Your task to perform on an android device: What's on my calendar tomorrow? Image 0: 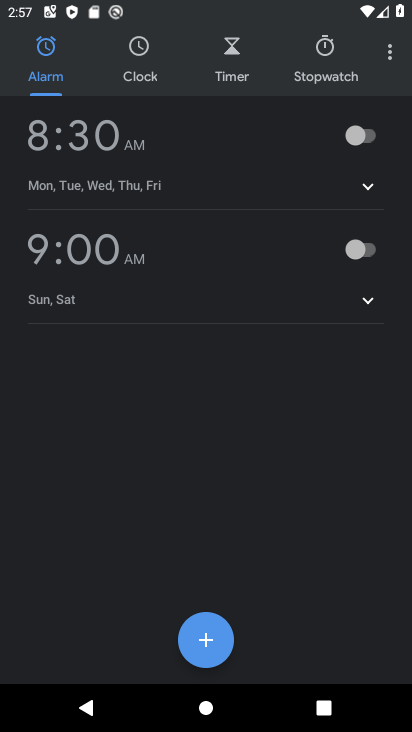
Step 0: press home button
Your task to perform on an android device: What's on my calendar tomorrow? Image 1: 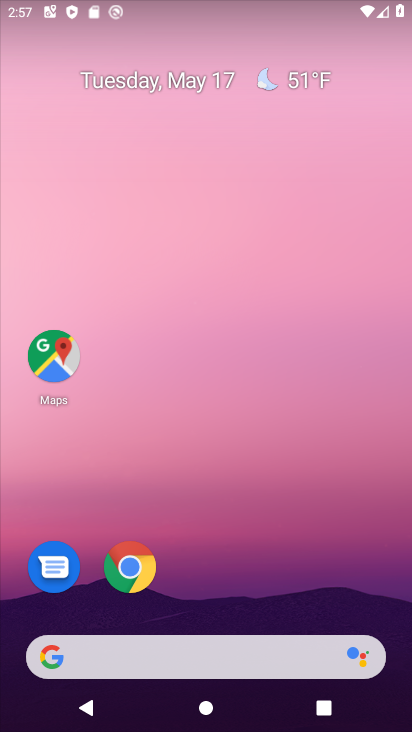
Step 1: drag from (230, 657) to (274, 202)
Your task to perform on an android device: What's on my calendar tomorrow? Image 2: 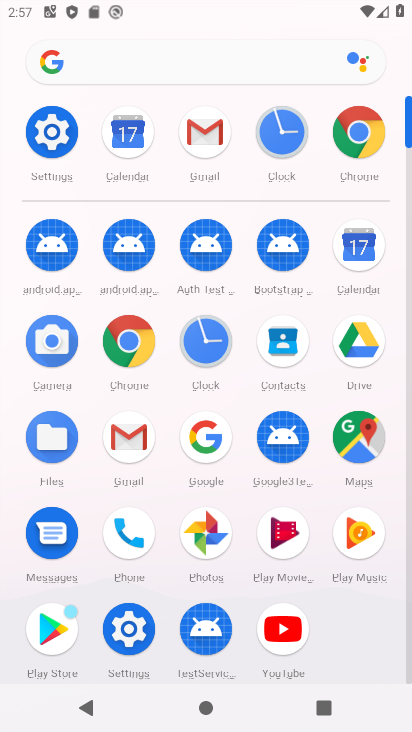
Step 2: click (353, 256)
Your task to perform on an android device: What's on my calendar tomorrow? Image 3: 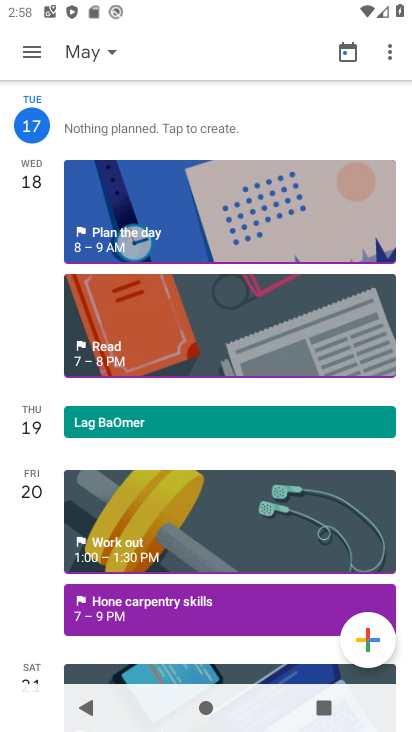
Step 3: task complete